Your task to perform on an android device: turn on translation in the chrome app Image 0: 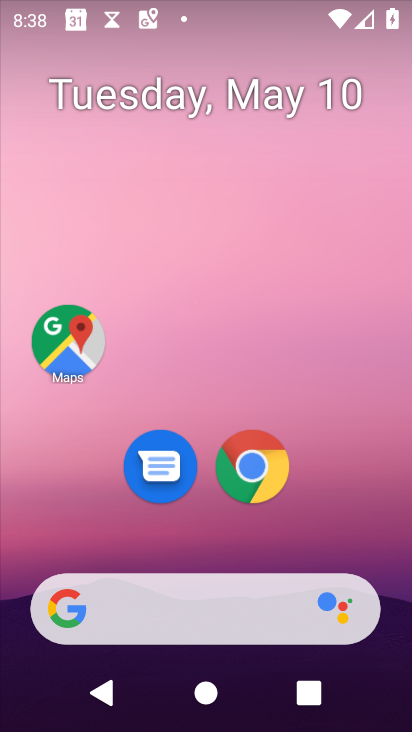
Step 0: click (257, 469)
Your task to perform on an android device: turn on translation in the chrome app Image 1: 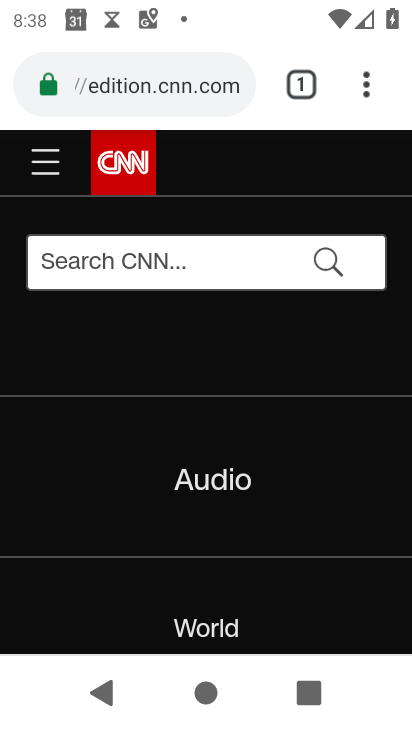
Step 1: click (352, 92)
Your task to perform on an android device: turn on translation in the chrome app Image 2: 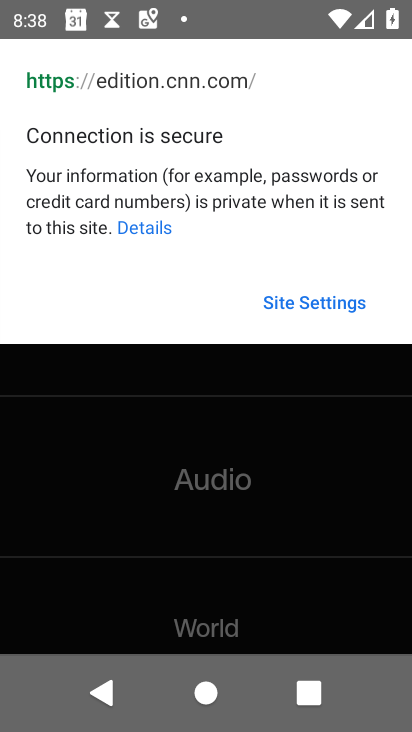
Step 2: click (226, 383)
Your task to perform on an android device: turn on translation in the chrome app Image 3: 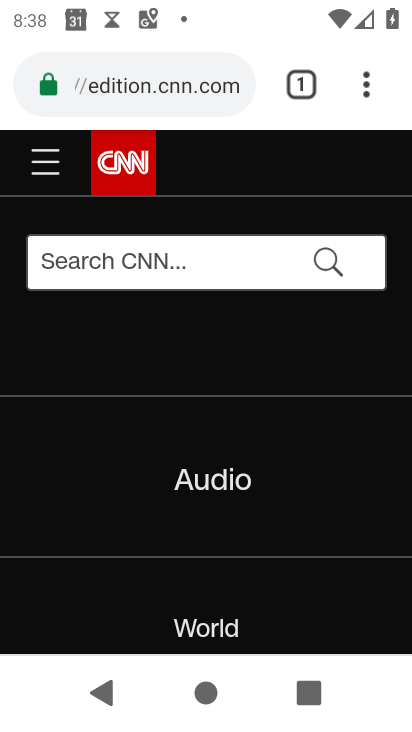
Step 3: click (354, 52)
Your task to perform on an android device: turn on translation in the chrome app Image 4: 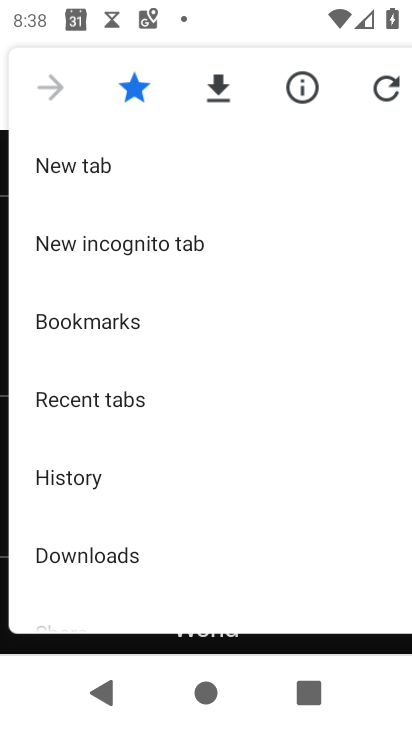
Step 4: drag from (207, 564) to (221, 303)
Your task to perform on an android device: turn on translation in the chrome app Image 5: 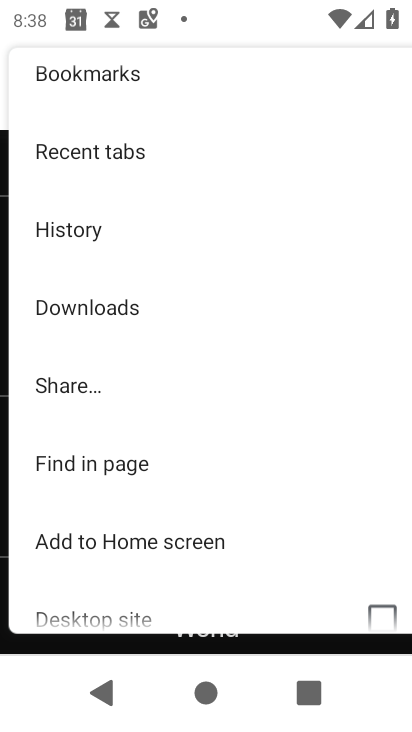
Step 5: drag from (181, 548) to (206, 305)
Your task to perform on an android device: turn on translation in the chrome app Image 6: 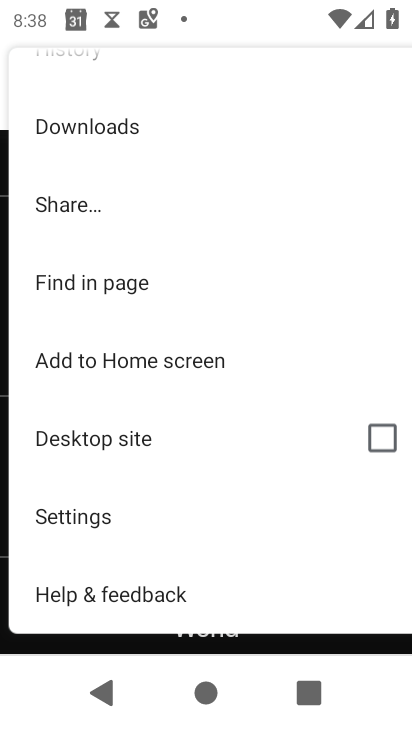
Step 6: click (184, 515)
Your task to perform on an android device: turn on translation in the chrome app Image 7: 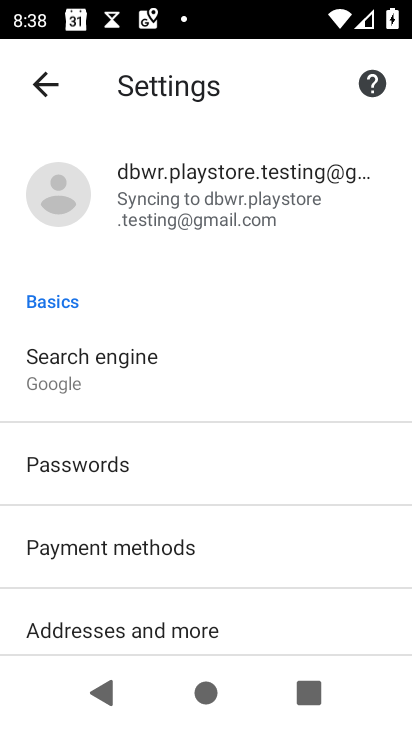
Step 7: drag from (149, 592) to (188, 364)
Your task to perform on an android device: turn on translation in the chrome app Image 8: 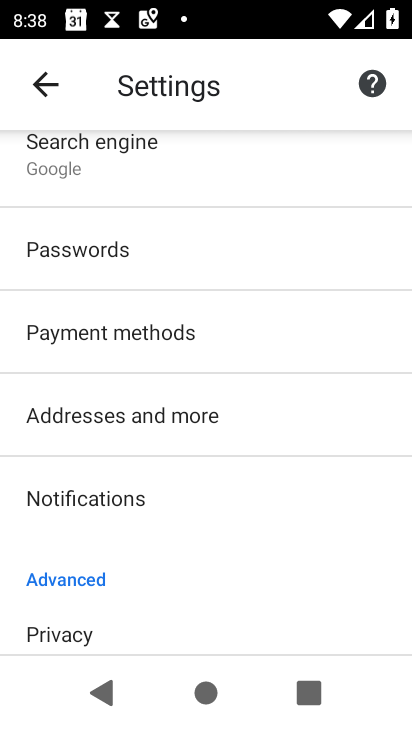
Step 8: drag from (167, 534) to (156, 420)
Your task to perform on an android device: turn on translation in the chrome app Image 9: 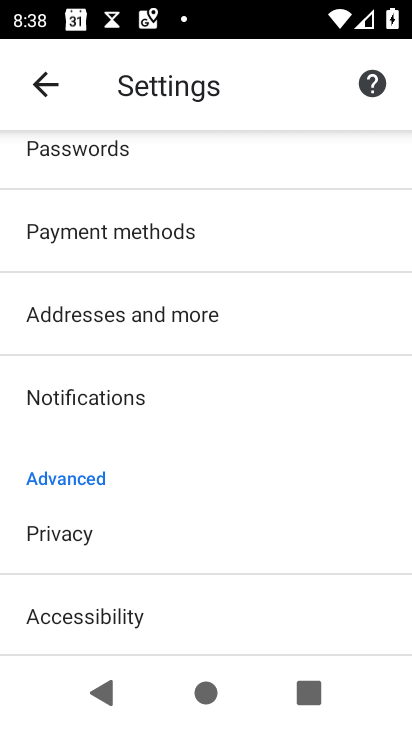
Step 9: drag from (164, 542) to (167, 443)
Your task to perform on an android device: turn on translation in the chrome app Image 10: 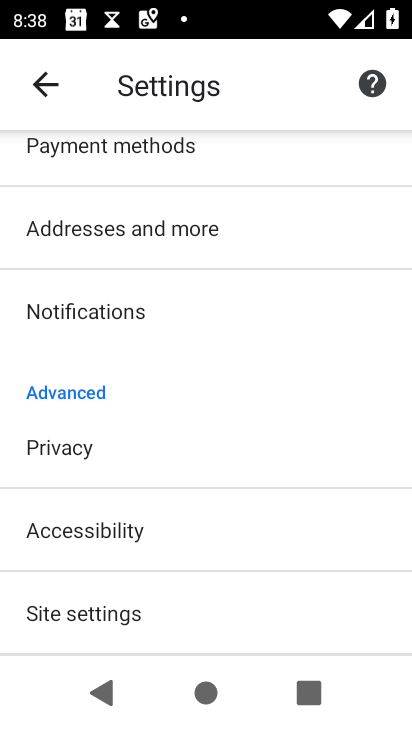
Step 10: drag from (156, 610) to (157, 383)
Your task to perform on an android device: turn on translation in the chrome app Image 11: 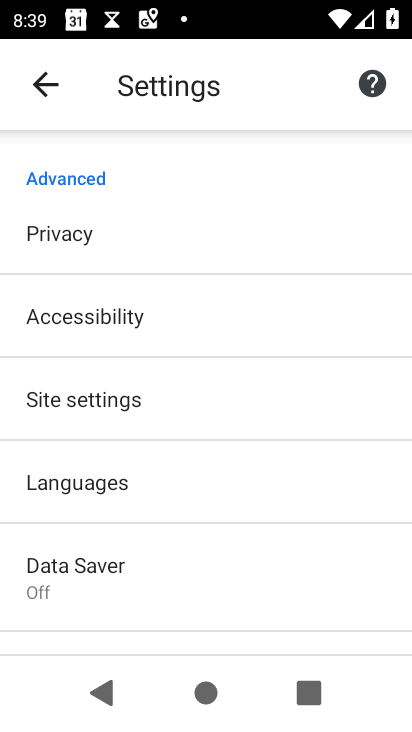
Step 11: click (189, 478)
Your task to perform on an android device: turn on translation in the chrome app Image 12: 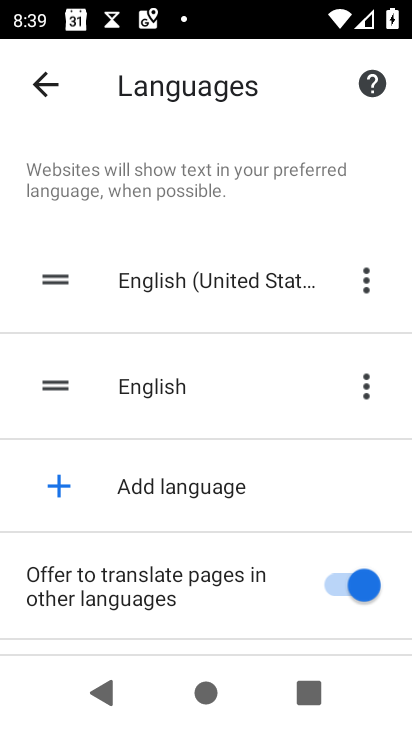
Step 12: task complete